Your task to perform on an android device: open app "Google Maps" Image 0: 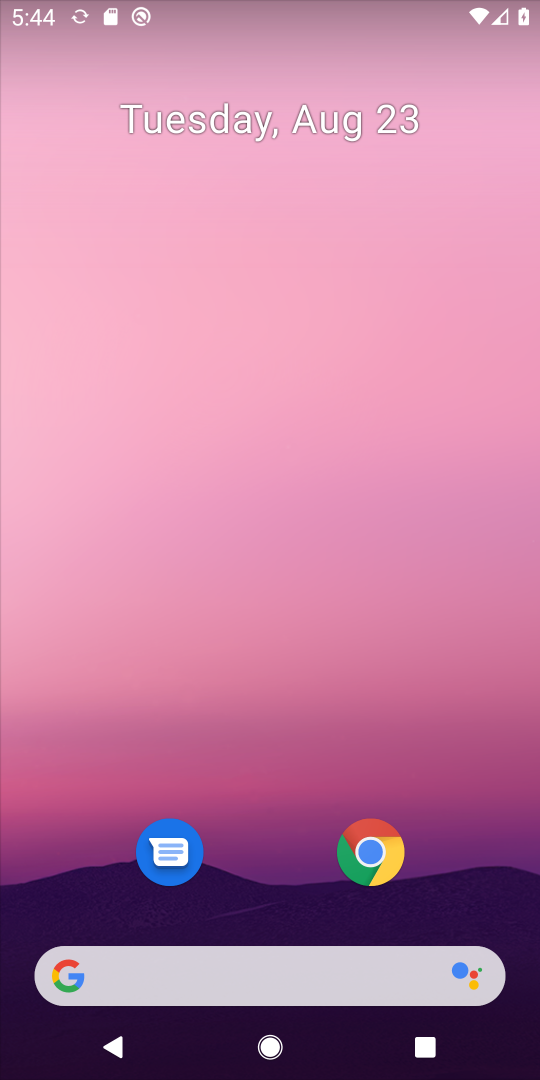
Step 0: drag from (204, 972) to (425, 119)
Your task to perform on an android device: open app "Google Maps" Image 1: 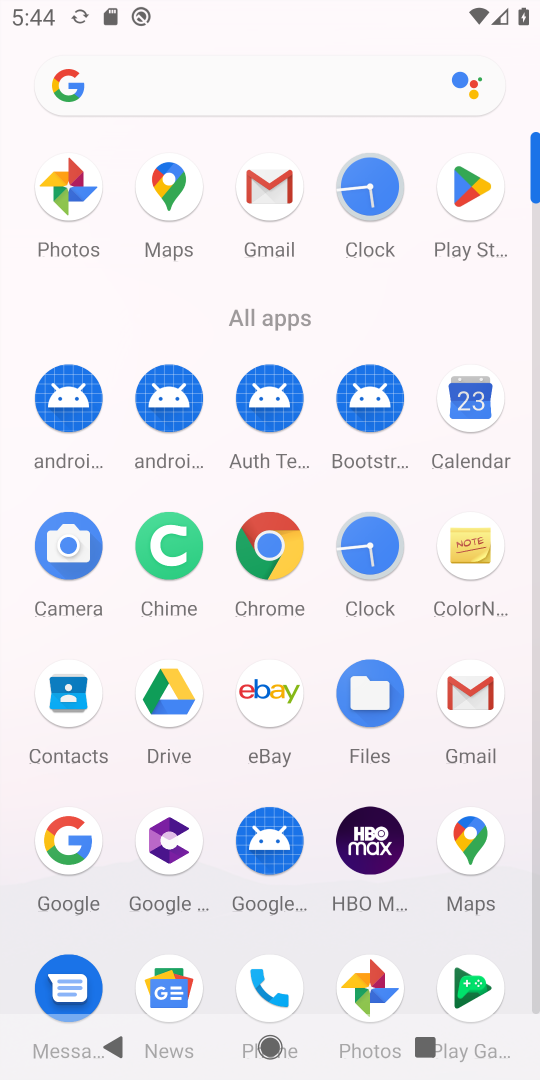
Step 1: click (166, 192)
Your task to perform on an android device: open app "Google Maps" Image 2: 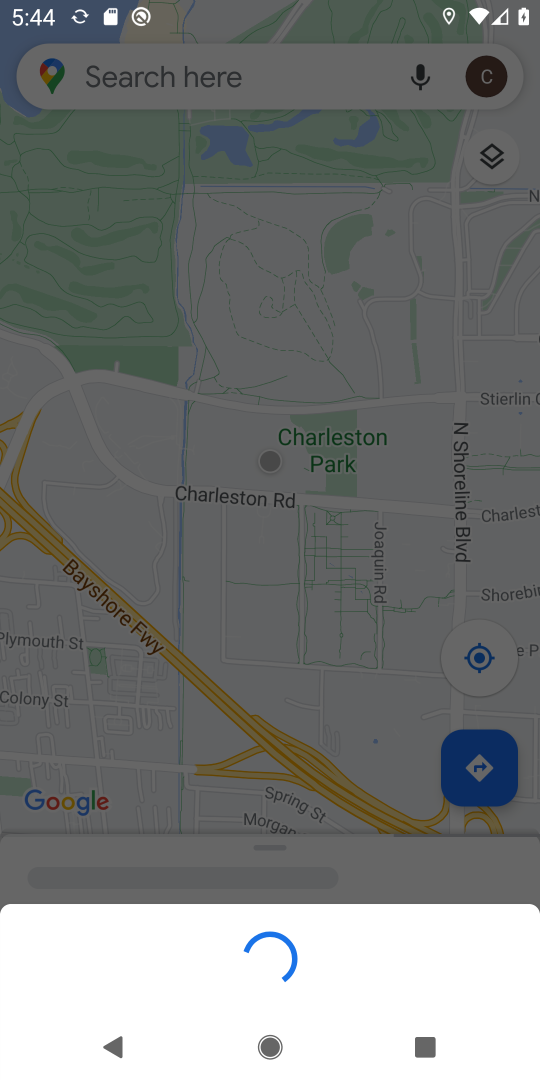
Step 2: task complete